Your task to perform on an android device: Check the weather Image 0: 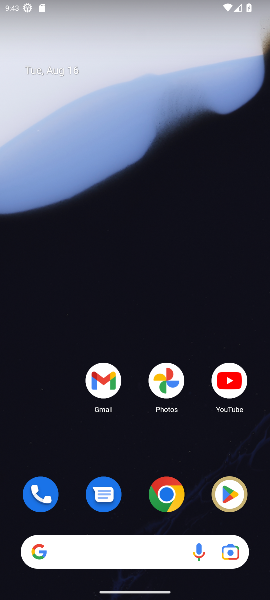
Step 0: press home button
Your task to perform on an android device: Check the weather Image 1: 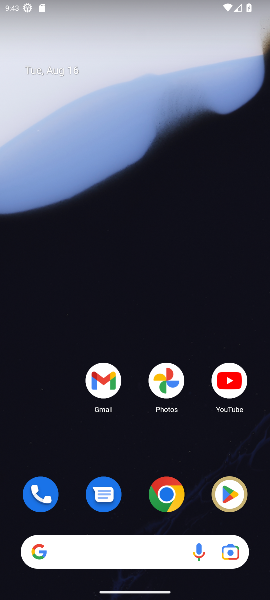
Step 1: drag from (23, 454) to (48, 106)
Your task to perform on an android device: Check the weather Image 2: 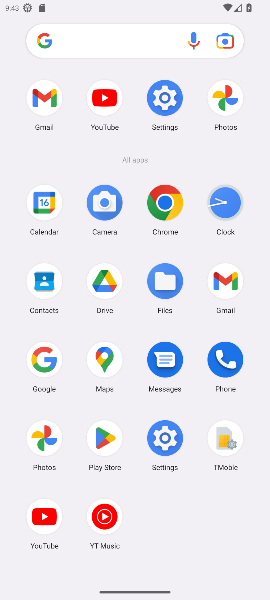
Step 2: click (160, 218)
Your task to perform on an android device: Check the weather Image 3: 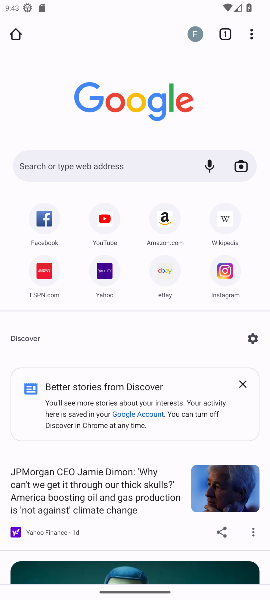
Step 3: click (158, 164)
Your task to perform on an android device: Check the weather Image 4: 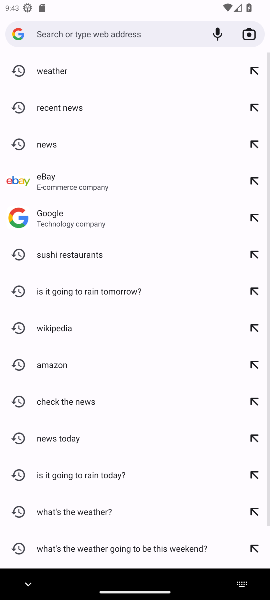
Step 4: type "weather"
Your task to perform on an android device: Check the weather Image 5: 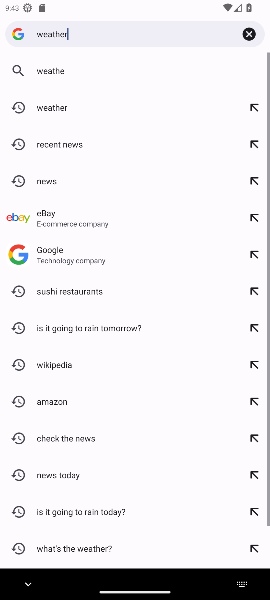
Step 5: type ""
Your task to perform on an android device: Check the weather Image 6: 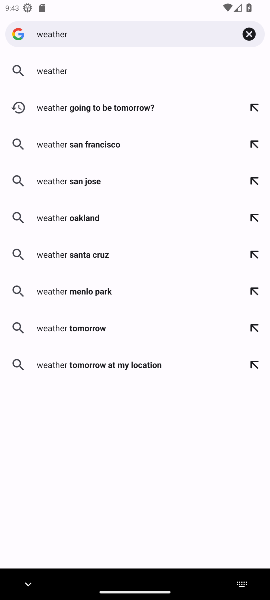
Step 6: click (43, 74)
Your task to perform on an android device: Check the weather Image 7: 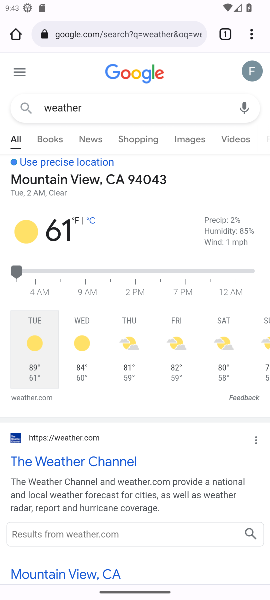
Step 7: task complete